Your task to perform on an android device: change your default location settings in chrome Image 0: 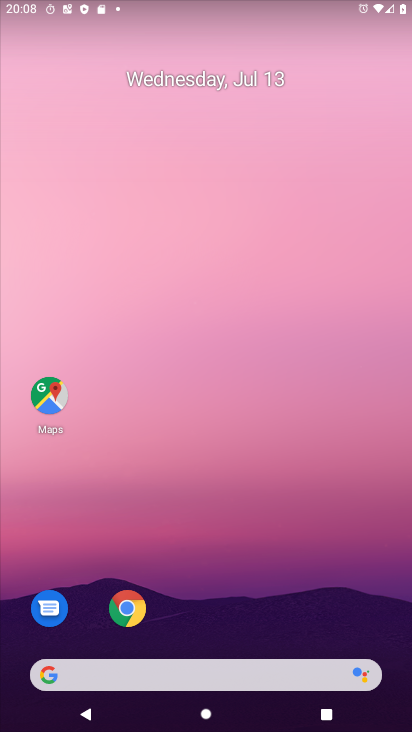
Step 0: drag from (215, 636) to (198, 6)
Your task to perform on an android device: change your default location settings in chrome Image 1: 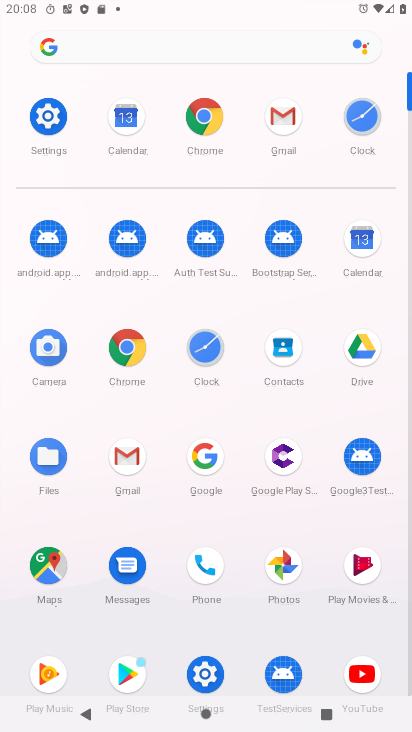
Step 1: click (125, 351)
Your task to perform on an android device: change your default location settings in chrome Image 2: 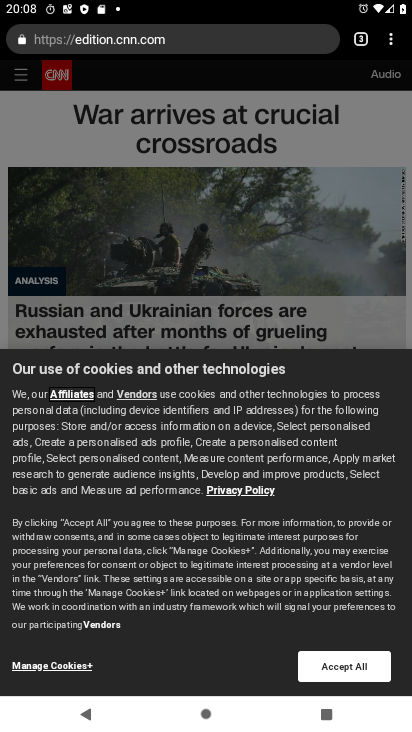
Step 2: click (392, 40)
Your task to perform on an android device: change your default location settings in chrome Image 3: 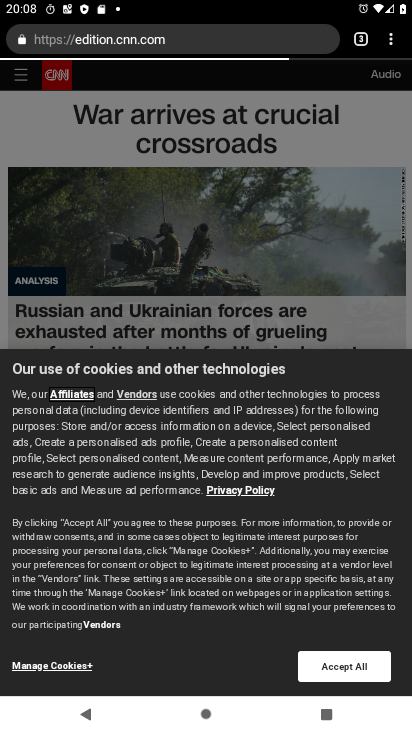
Step 3: drag from (388, 40) to (251, 482)
Your task to perform on an android device: change your default location settings in chrome Image 4: 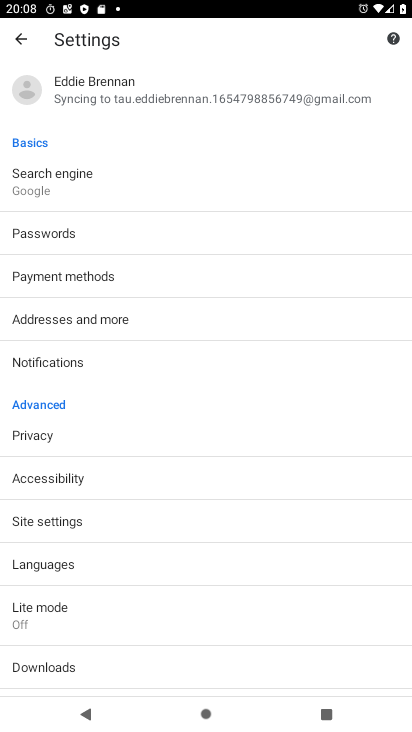
Step 4: click (91, 526)
Your task to perform on an android device: change your default location settings in chrome Image 5: 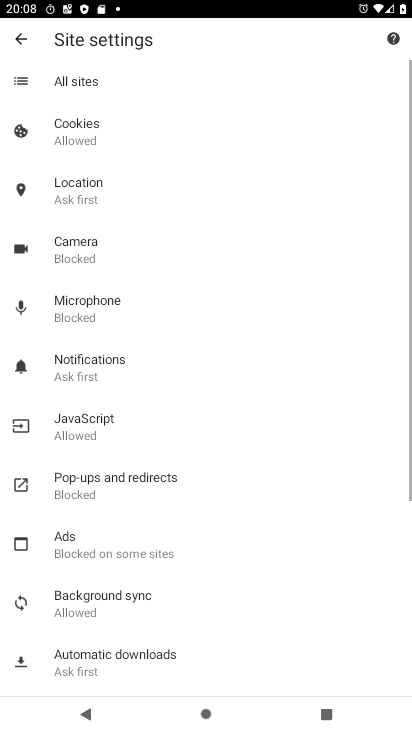
Step 5: click (100, 192)
Your task to perform on an android device: change your default location settings in chrome Image 6: 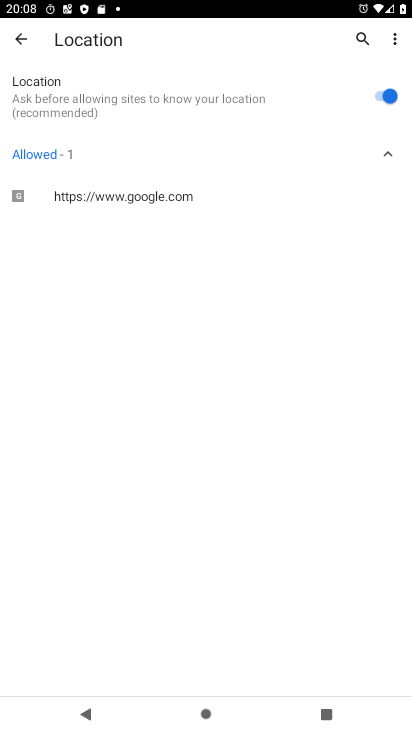
Step 6: click (370, 95)
Your task to perform on an android device: change your default location settings in chrome Image 7: 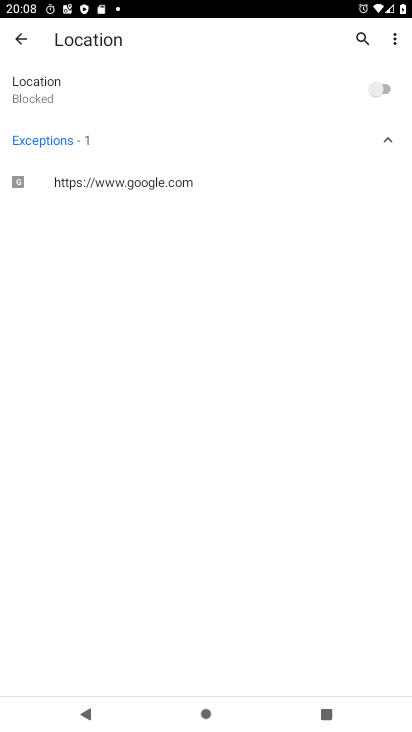
Step 7: task complete